Your task to perform on an android device: Search for vegetarian restaurants on Maps Image 0: 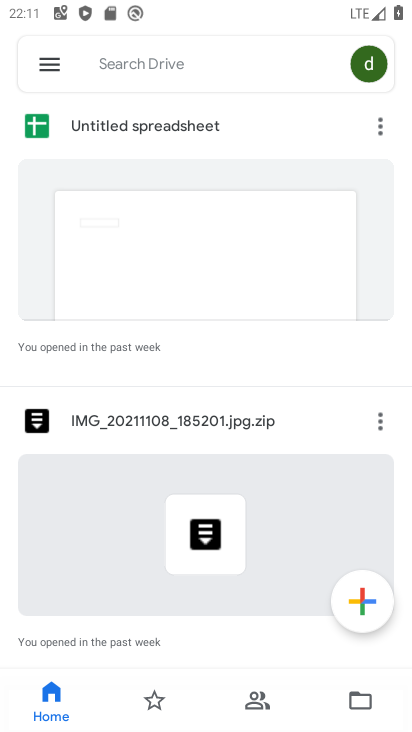
Step 0: press home button
Your task to perform on an android device: Search for vegetarian restaurants on Maps Image 1: 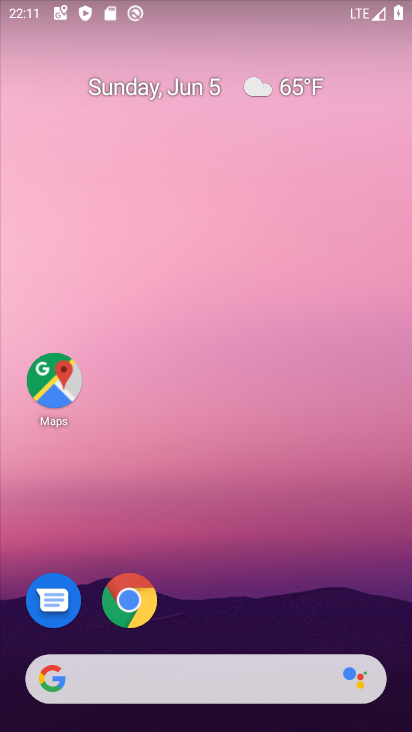
Step 1: click (55, 386)
Your task to perform on an android device: Search for vegetarian restaurants on Maps Image 2: 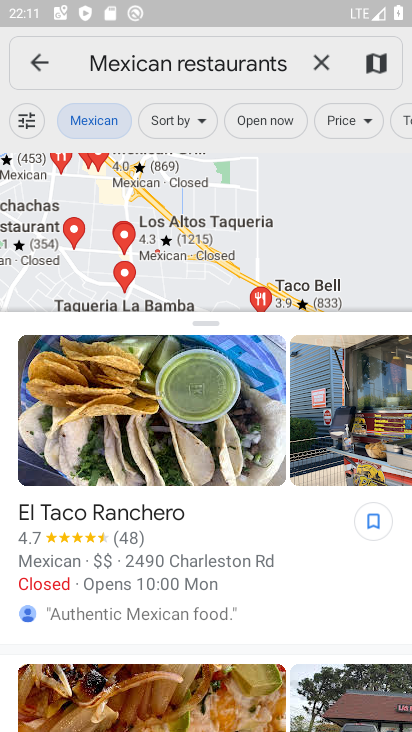
Step 2: click (235, 64)
Your task to perform on an android device: Search for vegetarian restaurants on Maps Image 3: 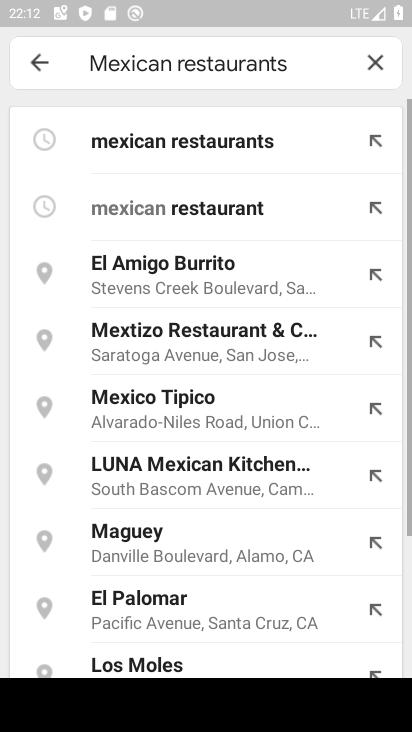
Step 3: click (377, 62)
Your task to perform on an android device: Search for vegetarian restaurants on Maps Image 4: 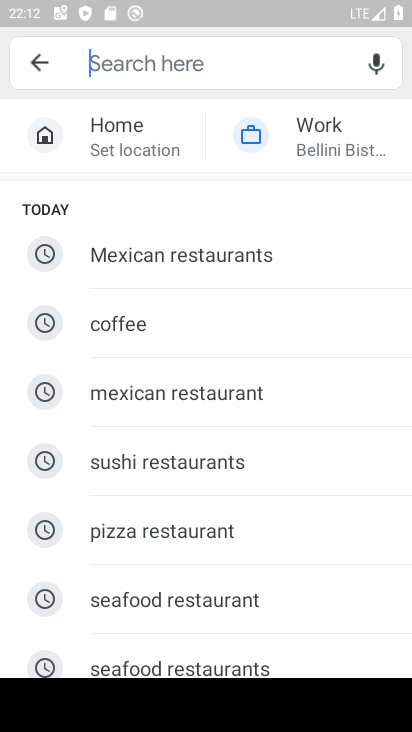
Step 4: drag from (289, 555) to (242, 317)
Your task to perform on an android device: Search for vegetarian restaurants on Maps Image 5: 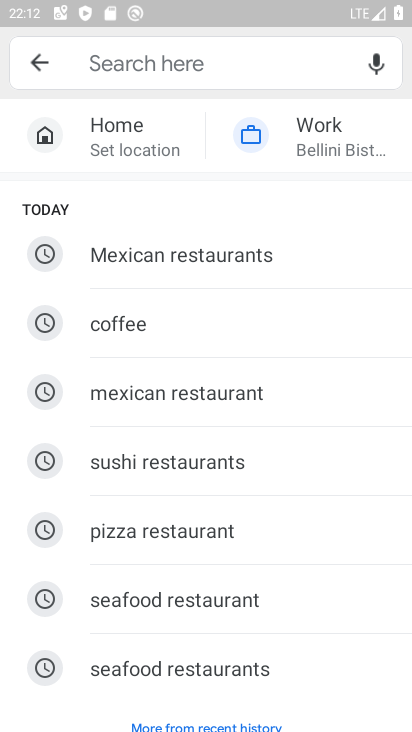
Step 5: click (170, 70)
Your task to perform on an android device: Search for vegetarian restaurants on Maps Image 6: 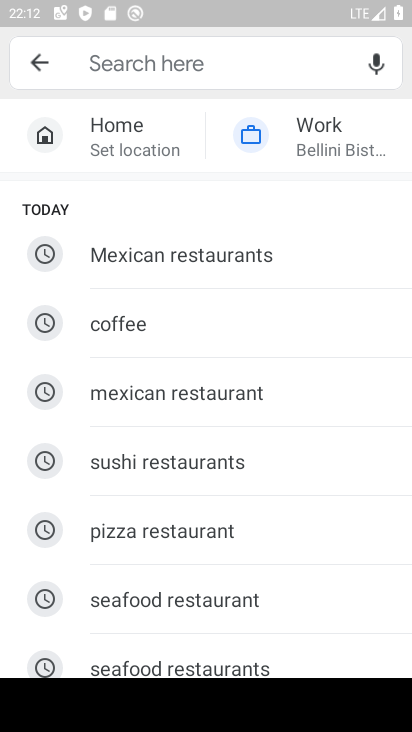
Step 6: type "vegetarian restaurants"
Your task to perform on an android device: Search for vegetarian restaurants on Maps Image 7: 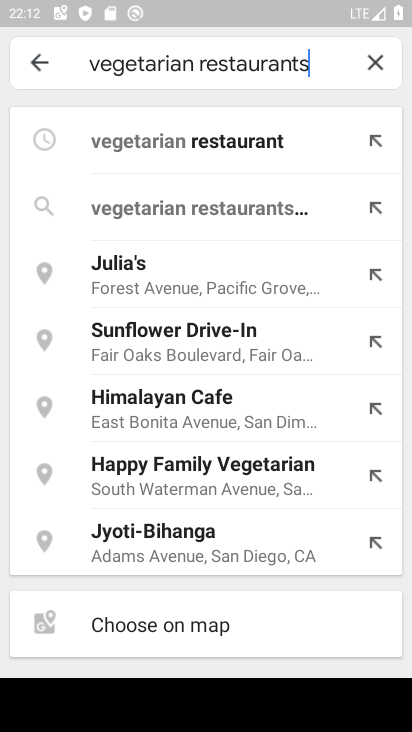
Step 7: press enter
Your task to perform on an android device: Search for vegetarian restaurants on Maps Image 8: 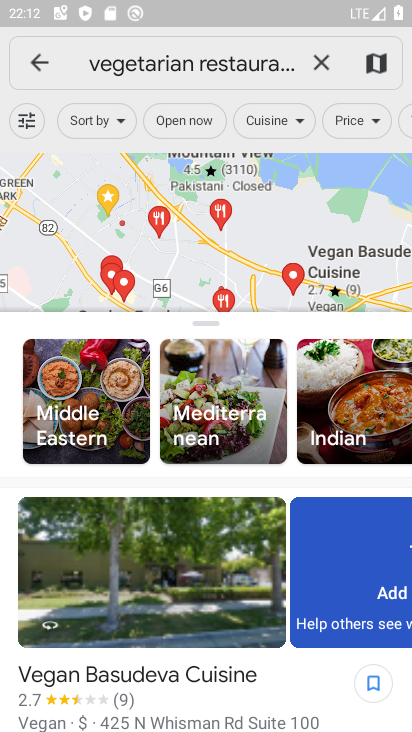
Step 8: task complete